Your task to perform on an android device: Go to notification settings Image 0: 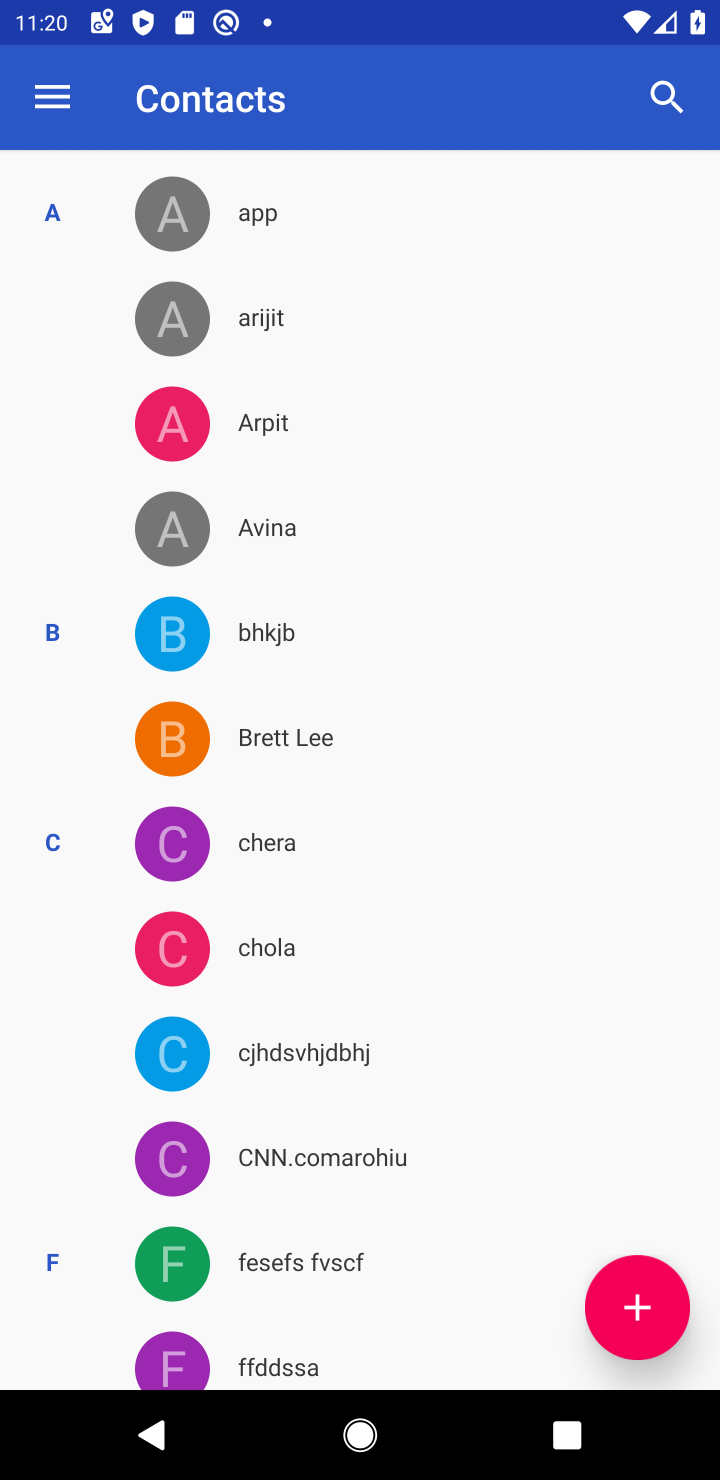
Step 0: press home button
Your task to perform on an android device: Go to notification settings Image 1: 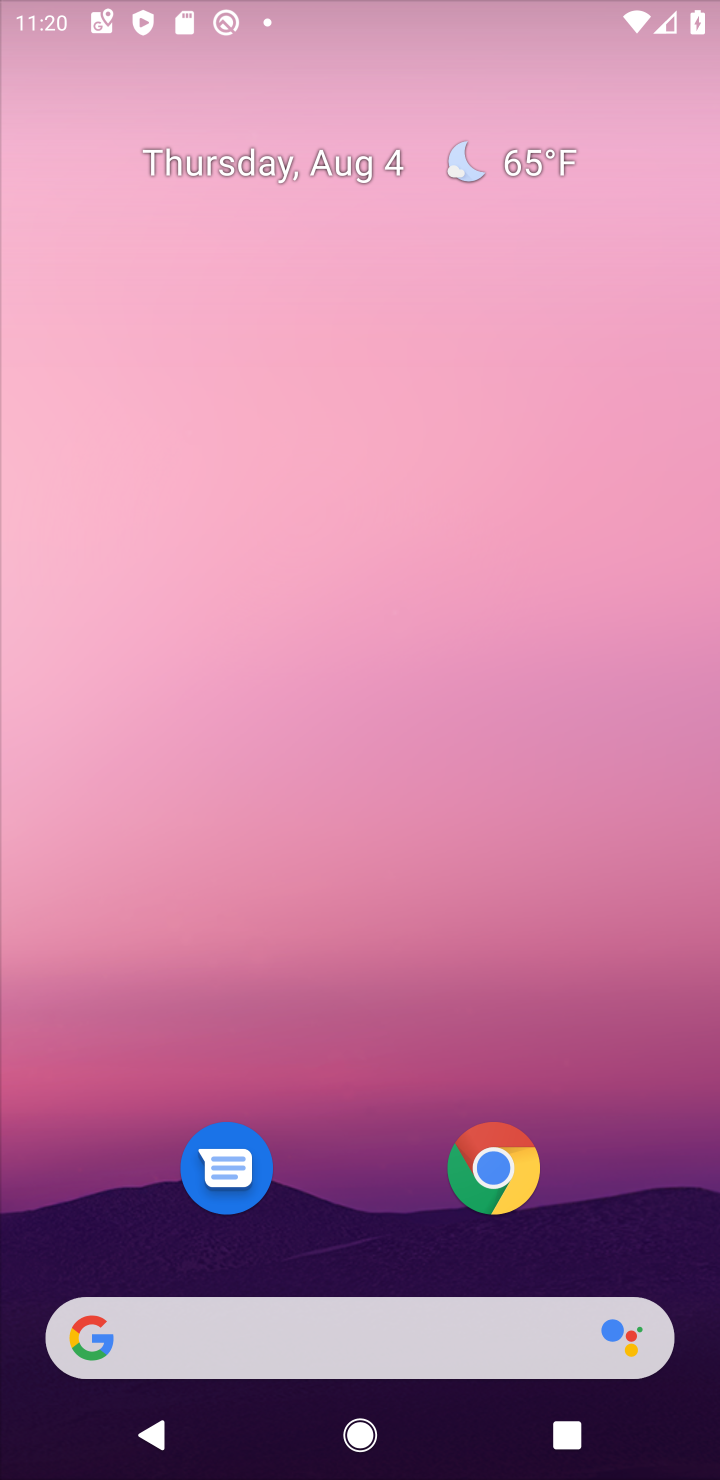
Step 1: drag from (690, 1313) to (425, 52)
Your task to perform on an android device: Go to notification settings Image 2: 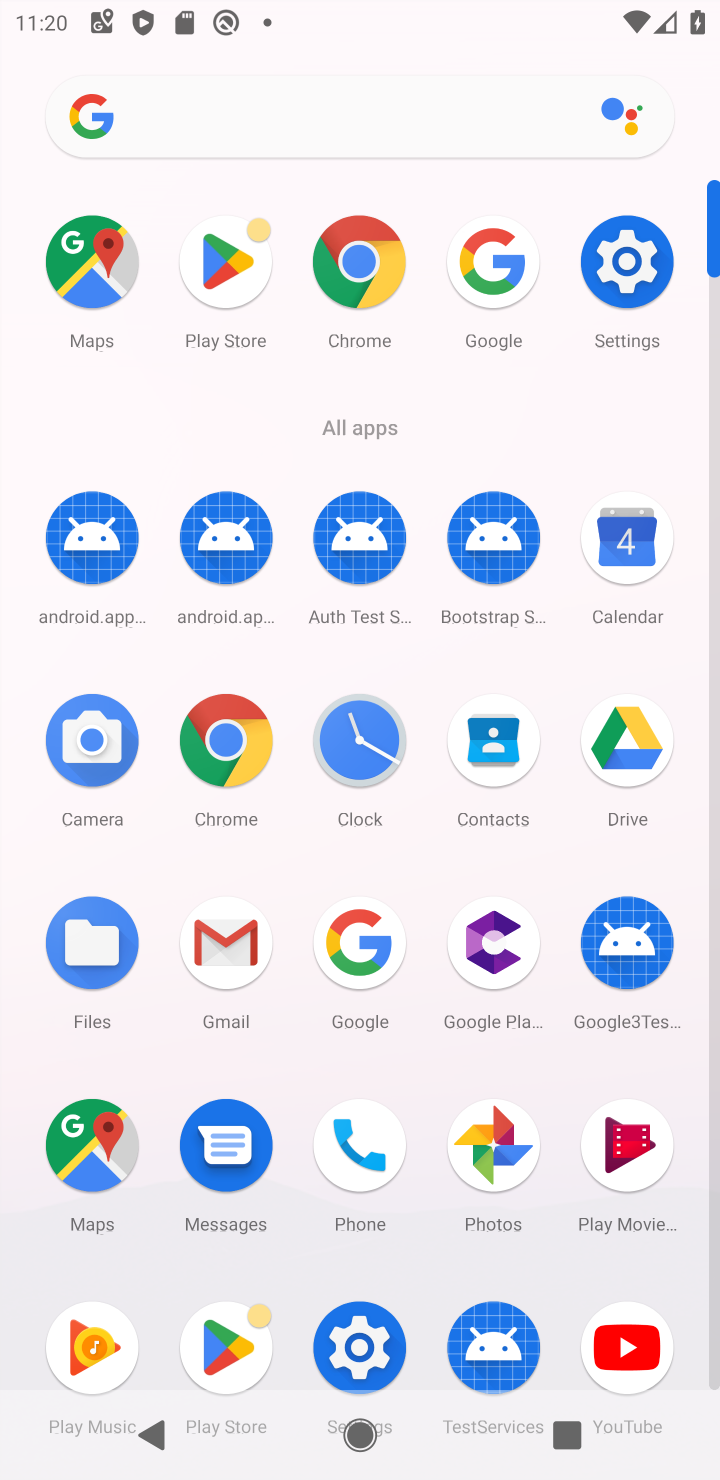
Step 2: click (603, 280)
Your task to perform on an android device: Go to notification settings Image 3: 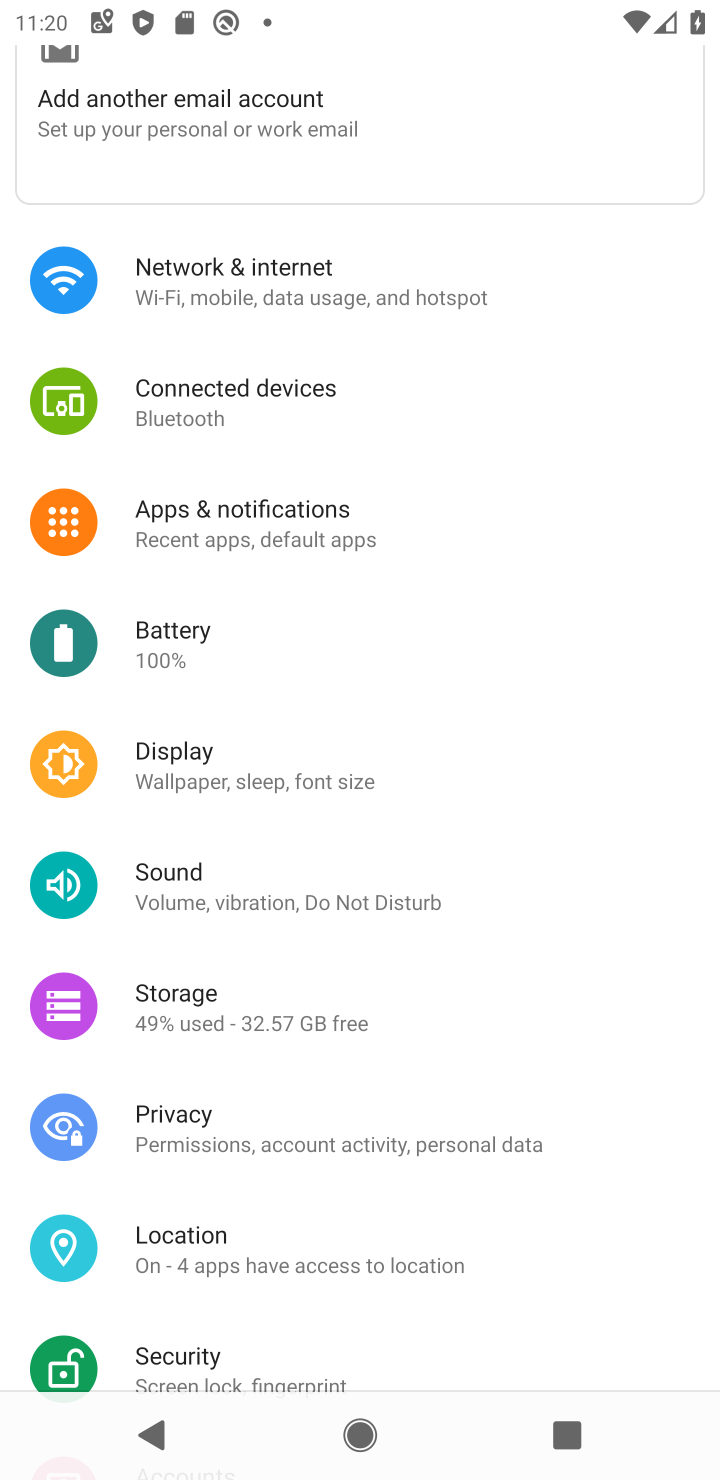
Step 3: click (270, 519)
Your task to perform on an android device: Go to notification settings Image 4: 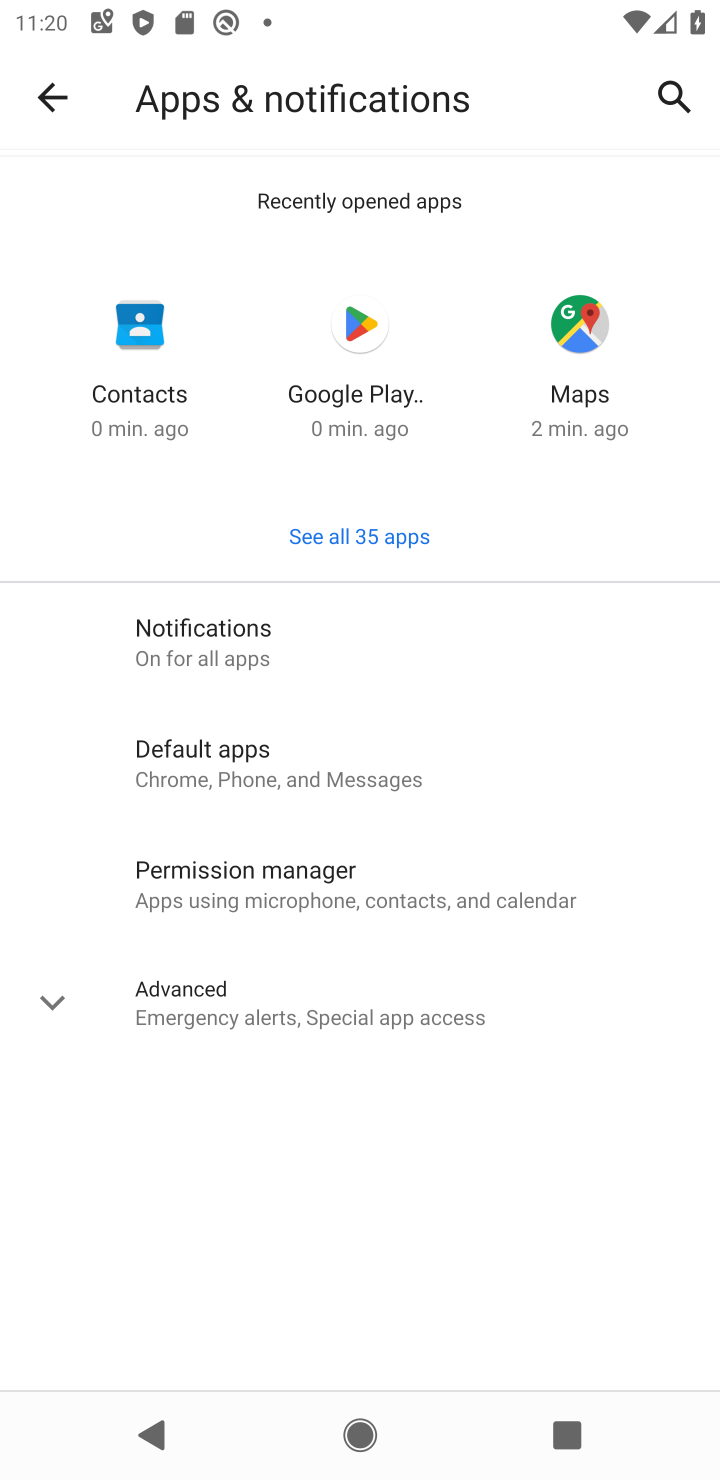
Step 4: click (234, 666)
Your task to perform on an android device: Go to notification settings Image 5: 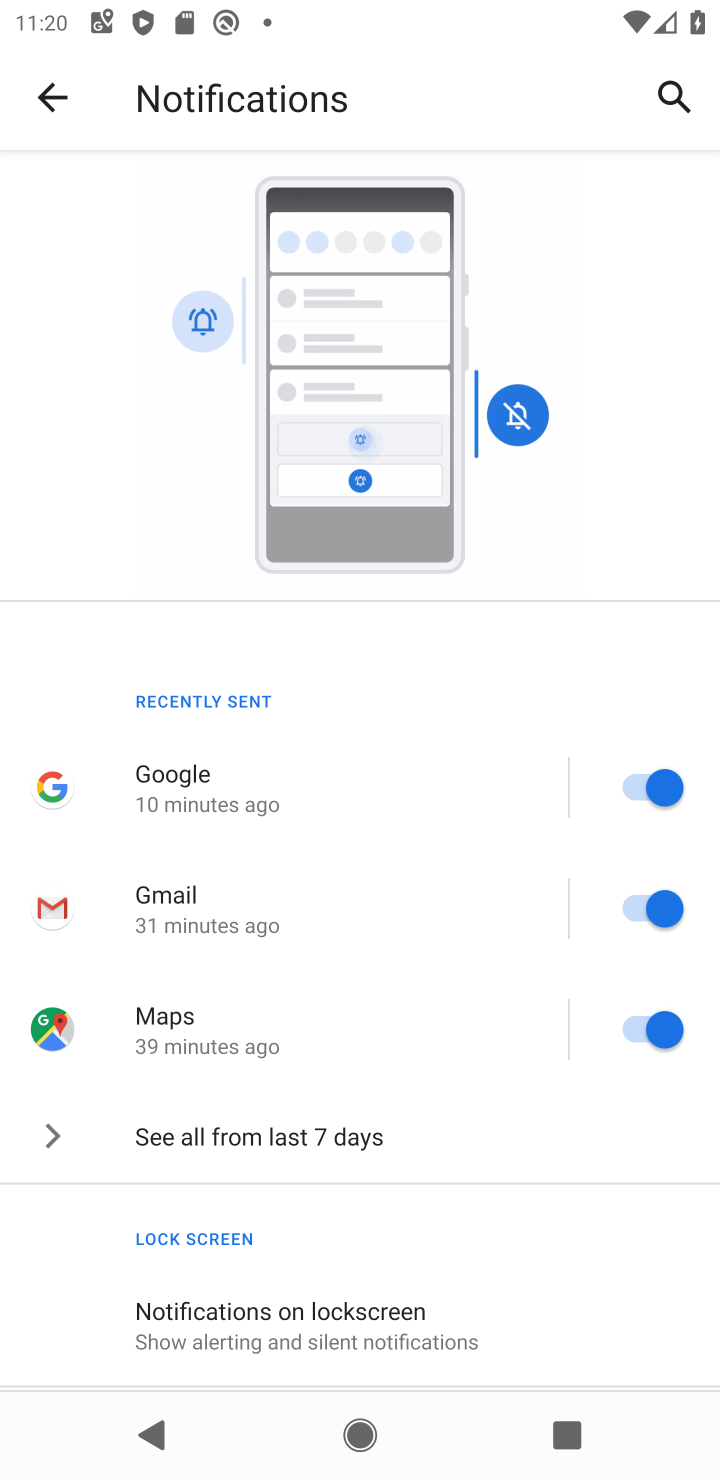
Step 5: task complete